Your task to perform on an android device: toggle notifications settings in the gmail app Image 0: 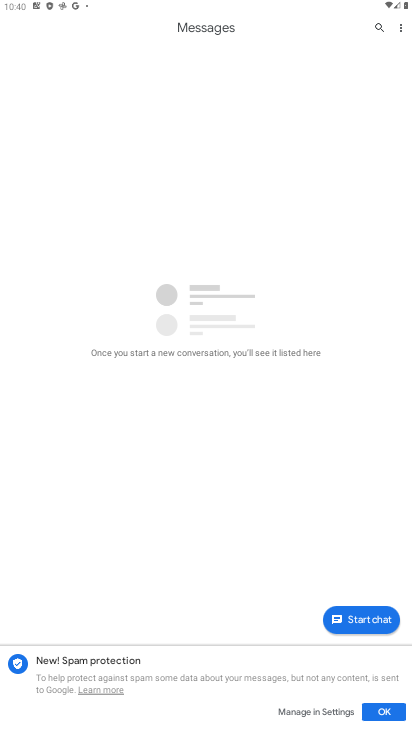
Step 0: press home button
Your task to perform on an android device: toggle notifications settings in the gmail app Image 1: 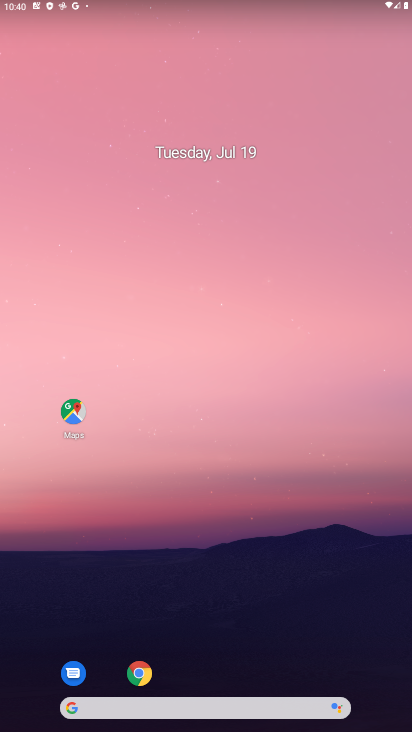
Step 1: drag from (270, 664) to (281, 16)
Your task to perform on an android device: toggle notifications settings in the gmail app Image 2: 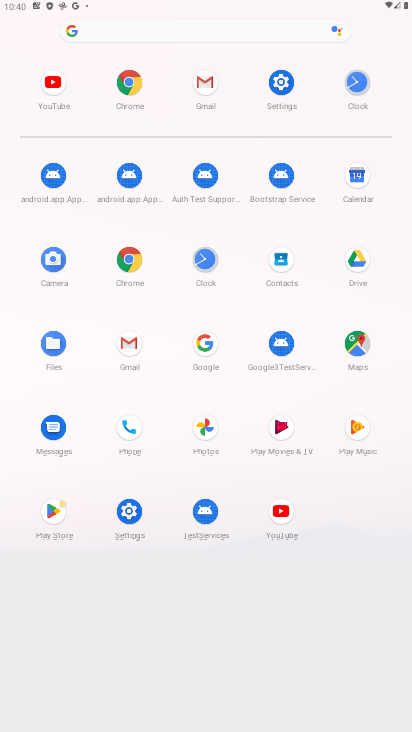
Step 2: click (192, 113)
Your task to perform on an android device: toggle notifications settings in the gmail app Image 3: 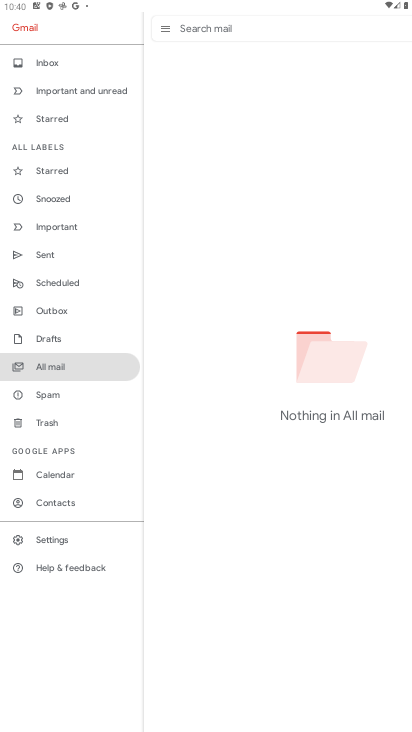
Step 3: task complete